Your task to perform on an android device: turn off translation in the chrome app Image 0: 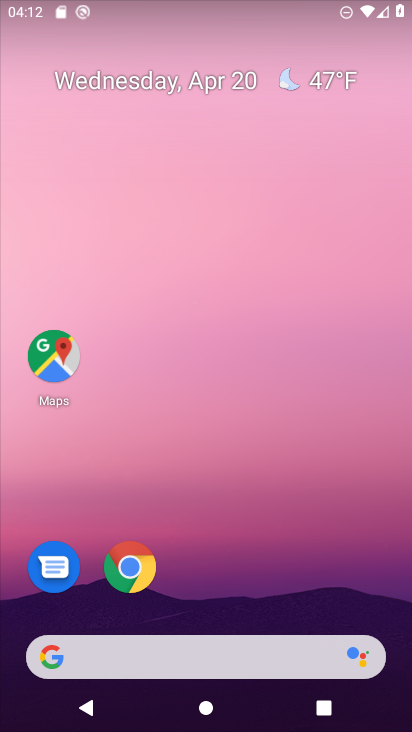
Step 0: click (130, 571)
Your task to perform on an android device: turn off translation in the chrome app Image 1: 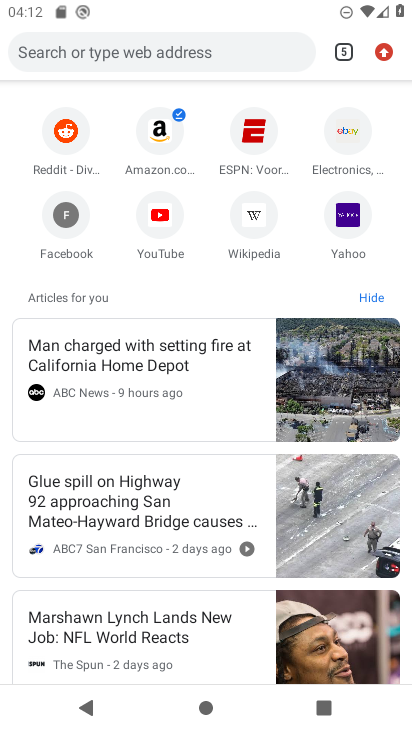
Step 1: click (380, 50)
Your task to perform on an android device: turn off translation in the chrome app Image 2: 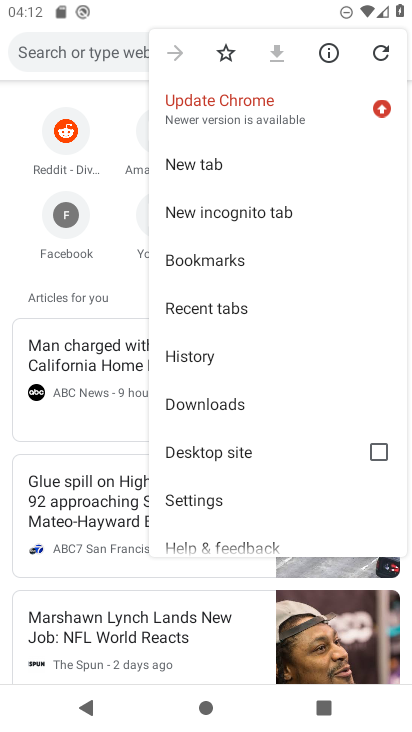
Step 2: click (199, 506)
Your task to perform on an android device: turn off translation in the chrome app Image 3: 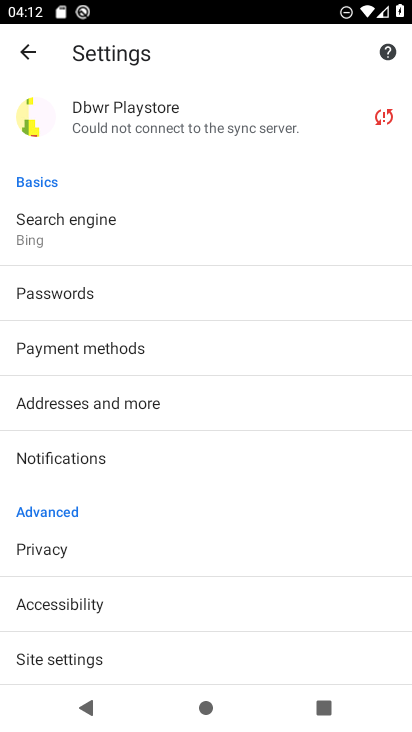
Step 3: drag from (199, 506) to (250, 64)
Your task to perform on an android device: turn off translation in the chrome app Image 4: 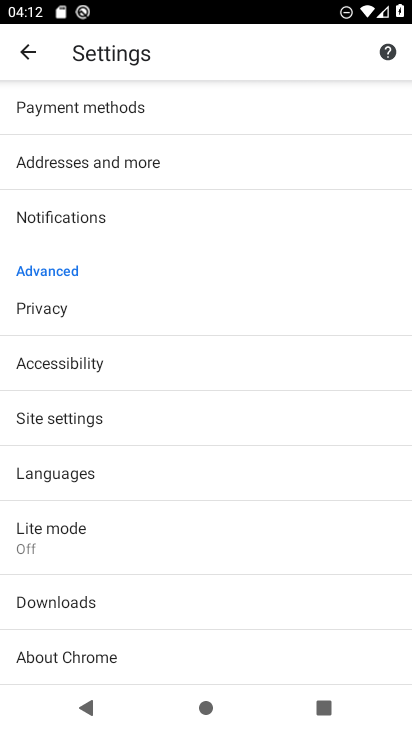
Step 4: click (209, 481)
Your task to perform on an android device: turn off translation in the chrome app Image 5: 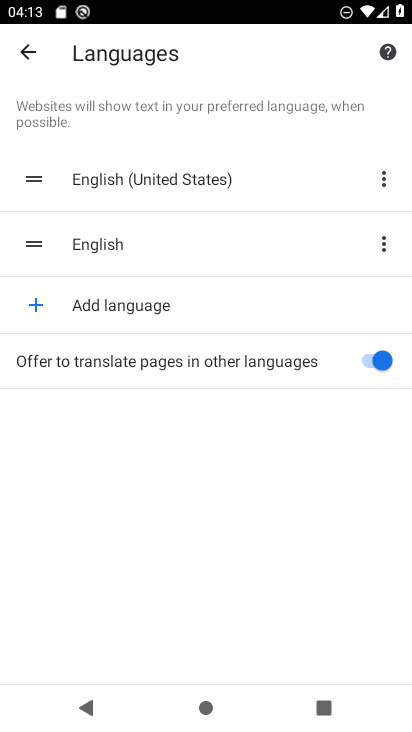
Step 5: click (377, 355)
Your task to perform on an android device: turn off translation in the chrome app Image 6: 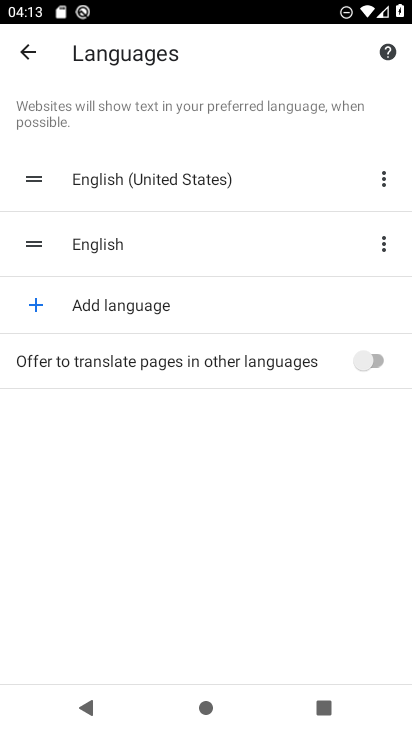
Step 6: task complete